Your task to perform on an android device: Go to notification settings Image 0: 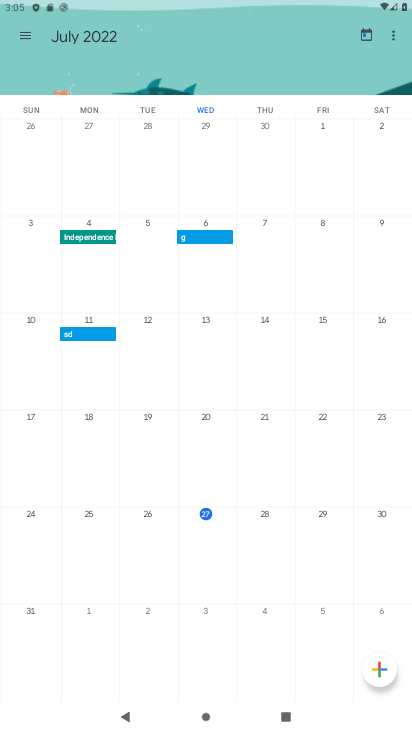
Step 0: press home button
Your task to perform on an android device: Go to notification settings Image 1: 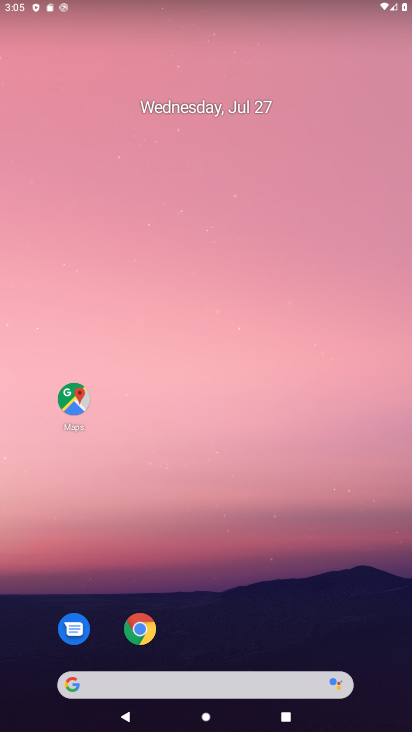
Step 1: drag from (230, 644) to (232, 12)
Your task to perform on an android device: Go to notification settings Image 2: 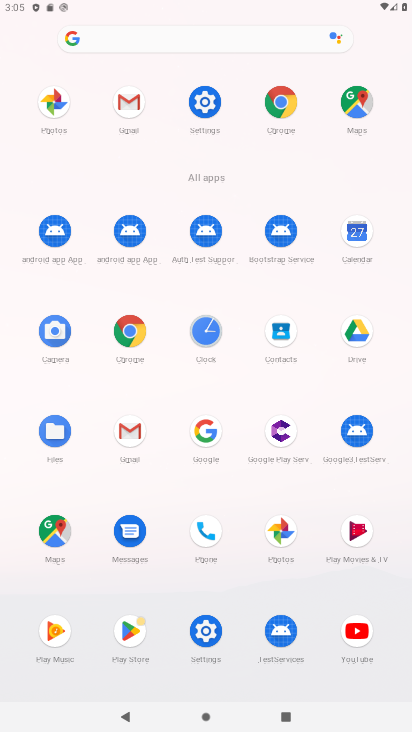
Step 2: click (209, 97)
Your task to perform on an android device: Go to notification settings Image 3: 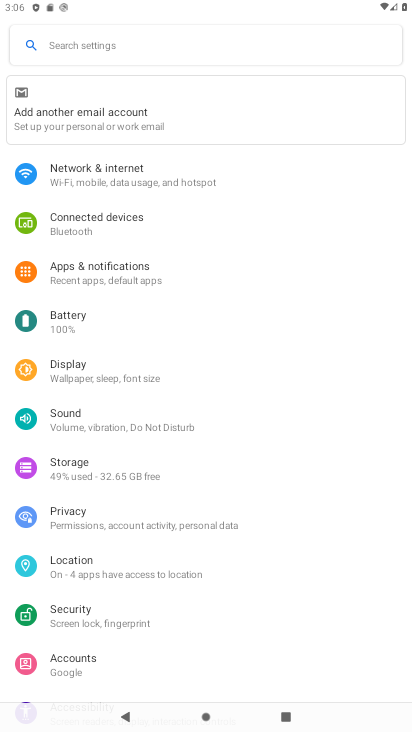
Step 3: click (162, 265)
Your task to perform on an android device: Go to notification settings Image 4: 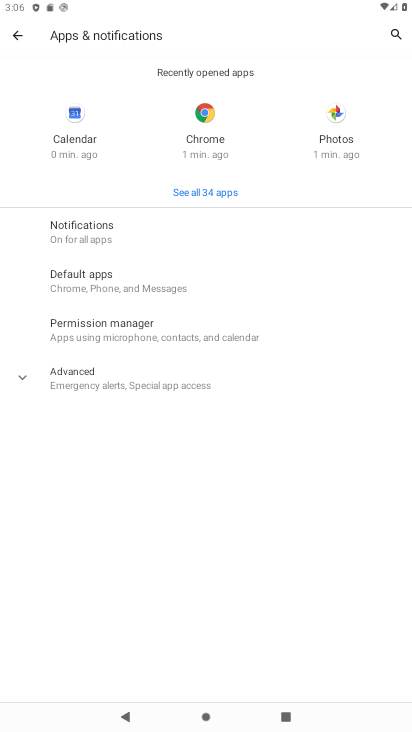
Step 4: click (122, 224)
Your task to perform on an android device: Go to notification settings Image 5: 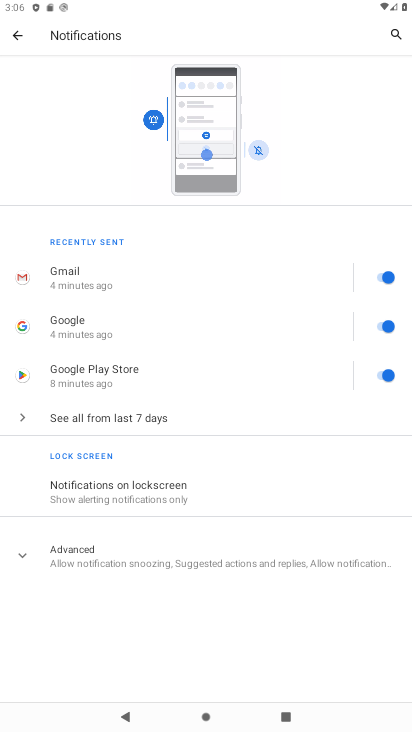
Step 5: click (32, 549)
Your task to perform on an android device: Go to notification settings Image 6: 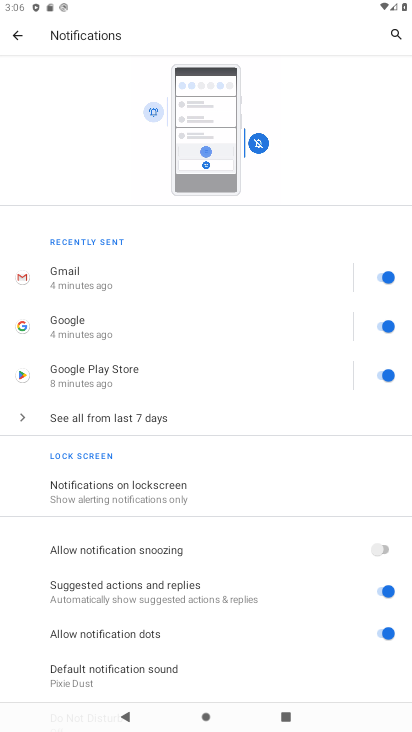
Step 6: task complete